Your task to perform on an android device: uninstall "Walmart Shopping & Grocery" Image 0: 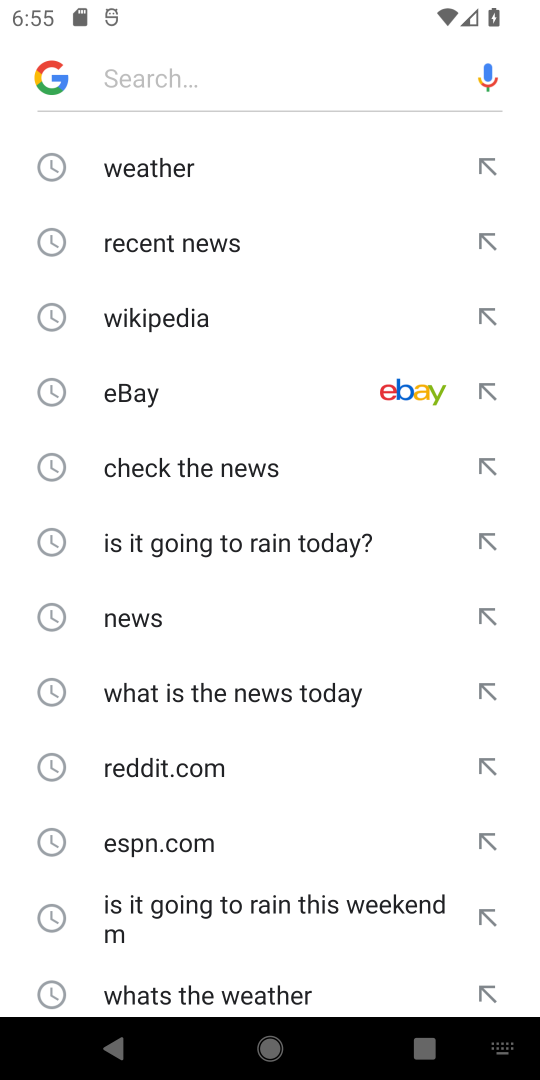
Step 0: press back button
Your task to perform on an android device: uninstall "Walmart Shopping & Grocery" Image 1: 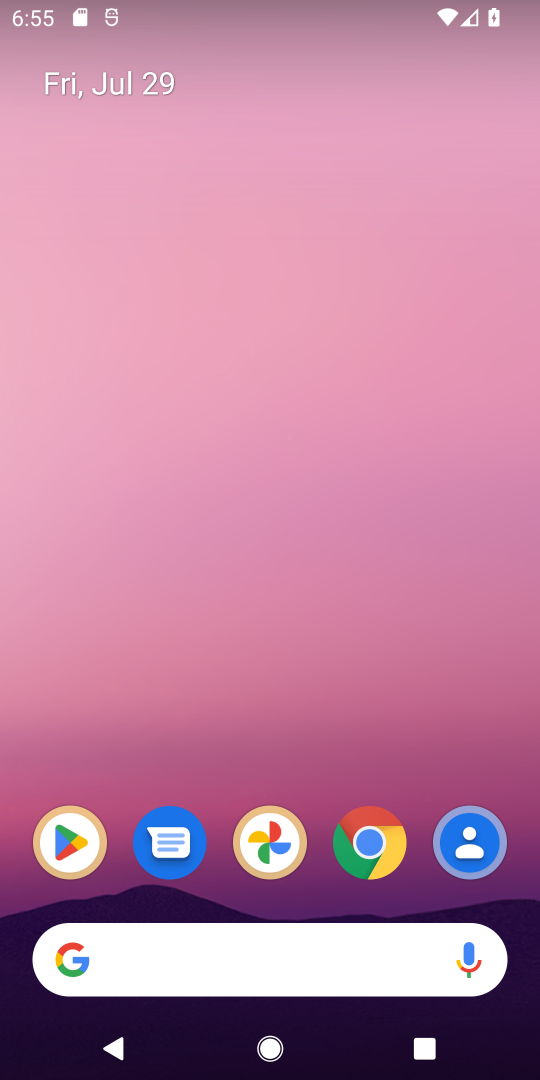
Step 1: drag from (278, 932) to (278, 370)
Your task to perform on an android device: uninstall "Walmart Shopping & Grocery" Image 2: 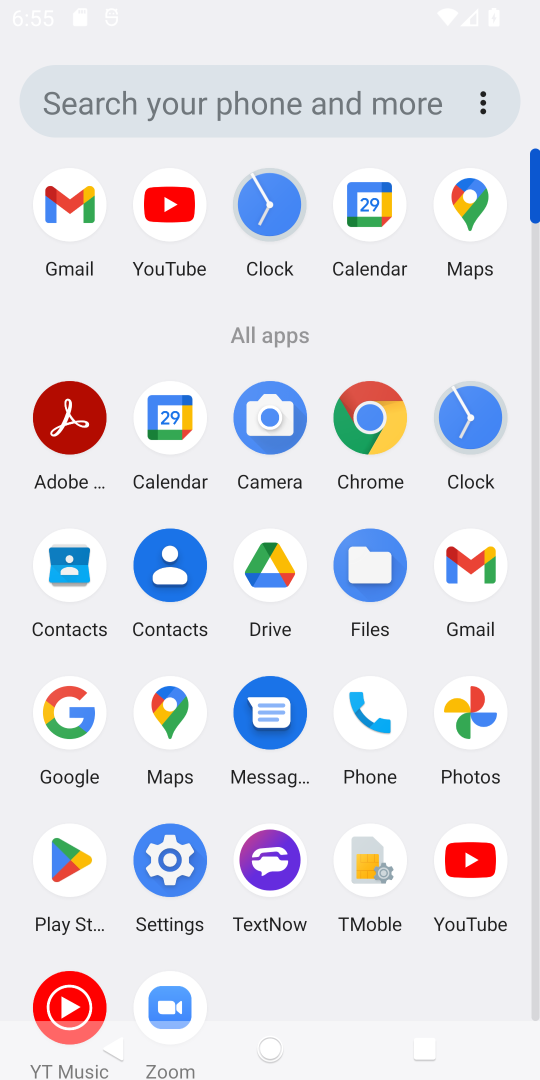
Step 2: drag from (481, 863) to (426, 399)
Your task to perform on an android device: uninstall "Walmart Shopping & Grocery" Image 3: 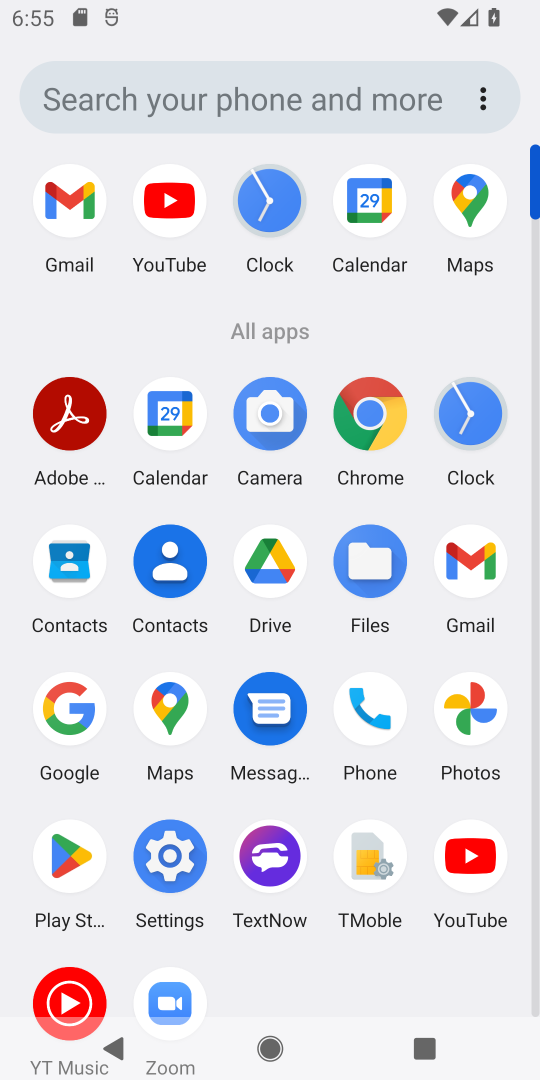
Step 3: drag from (374, 869) to (372, 404)
Your task to perform on an android device: uninstall "Walmart Shopping & Grocery" Image 4: 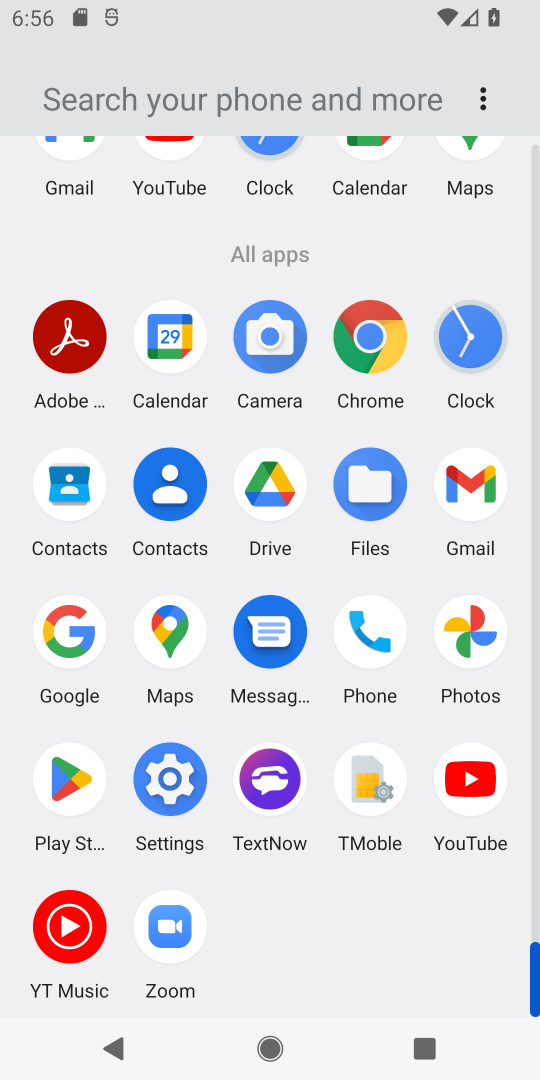
Step 4: click (57, 800)
Your task to perform on an android device: uninstall "Walmart Shopping & Grocery" Image 5: 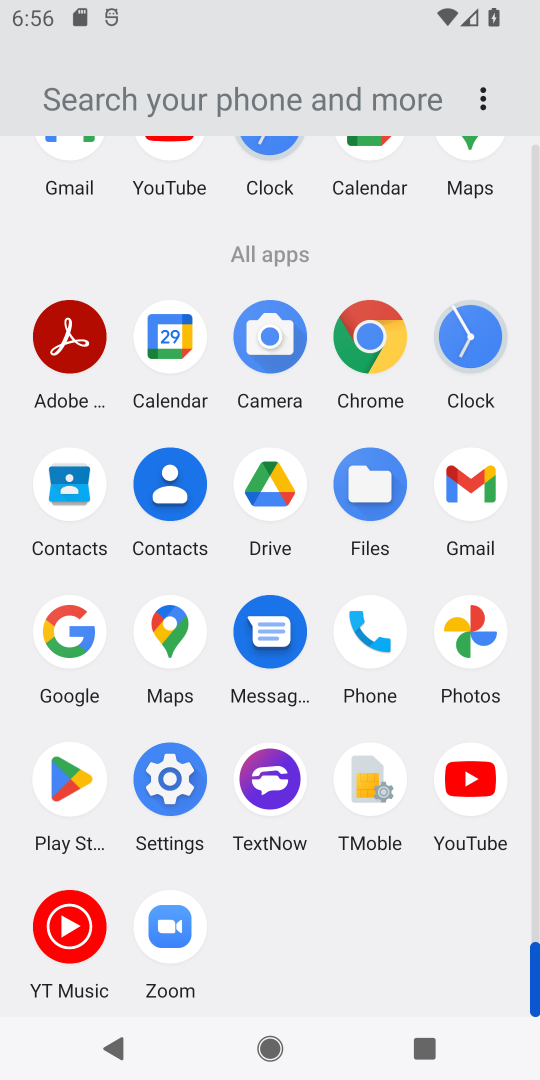
Step 5: click (84, 797)
Your task to perform on an android device: uninstall "Walmart Shopping & Grocery" Image 6: 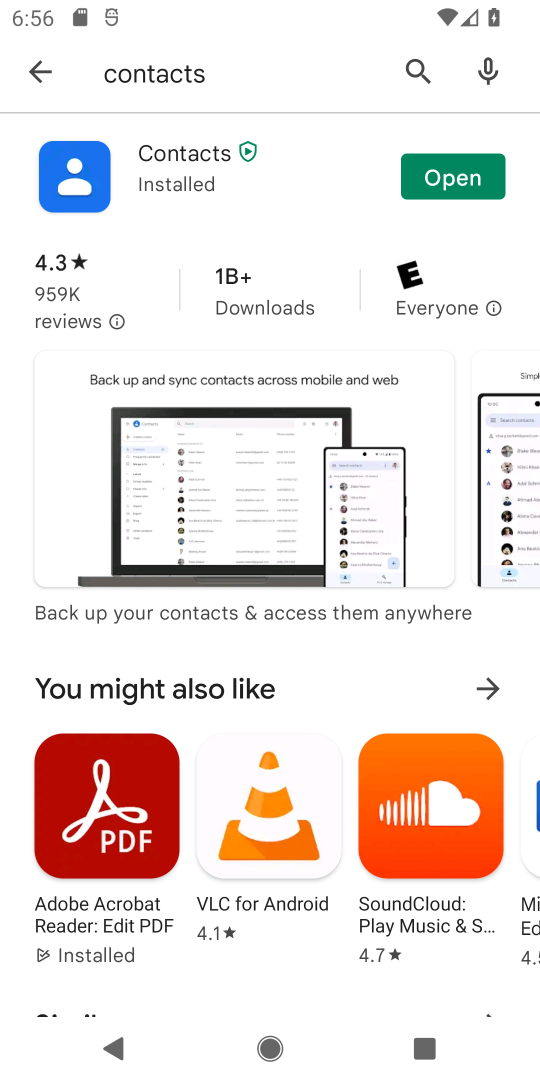
Step 6: click (231, 70)
Your task to perform on an android device: uninstall "Walmart Shopping & Grocery" Image 7: 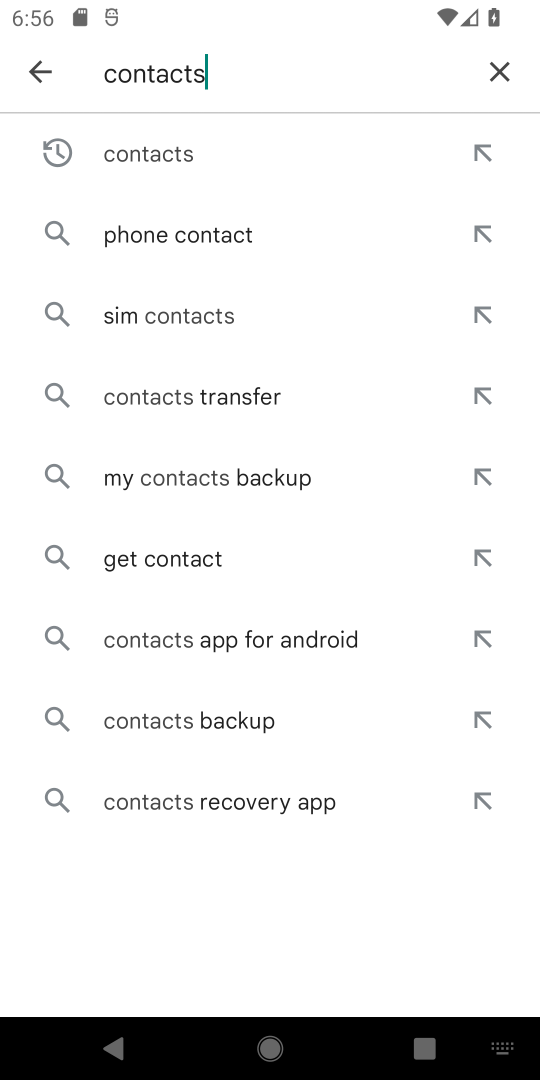
Step 7: click (35, 76)
Your task to perform on an android device: uninstall "Walmart Shopping & Grocery" Image 8: 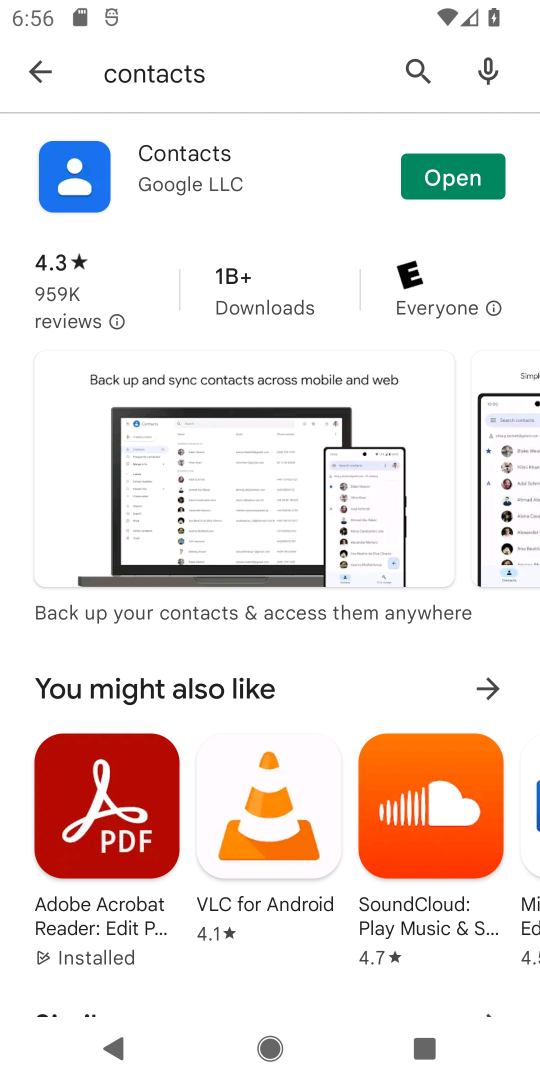
Step 8: click (211, 65)
Your task to perform on an android device: uninstall "Walmart Shopping & Grocery" Image 9: 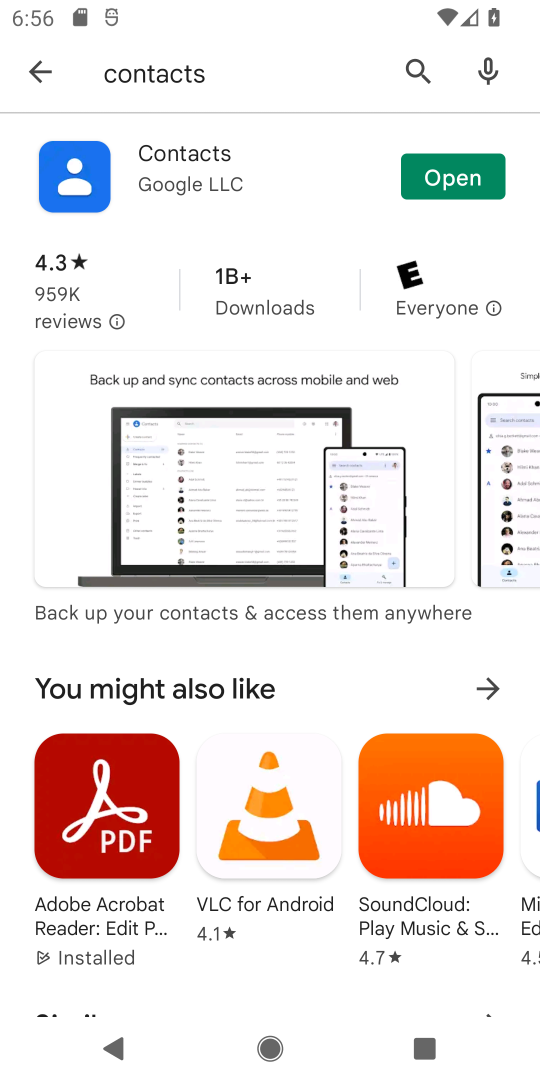
Step 9: click (213, 65)
Your task to perform on an android device: uninstall "Walmart Shopping & Grocery" Image 10: 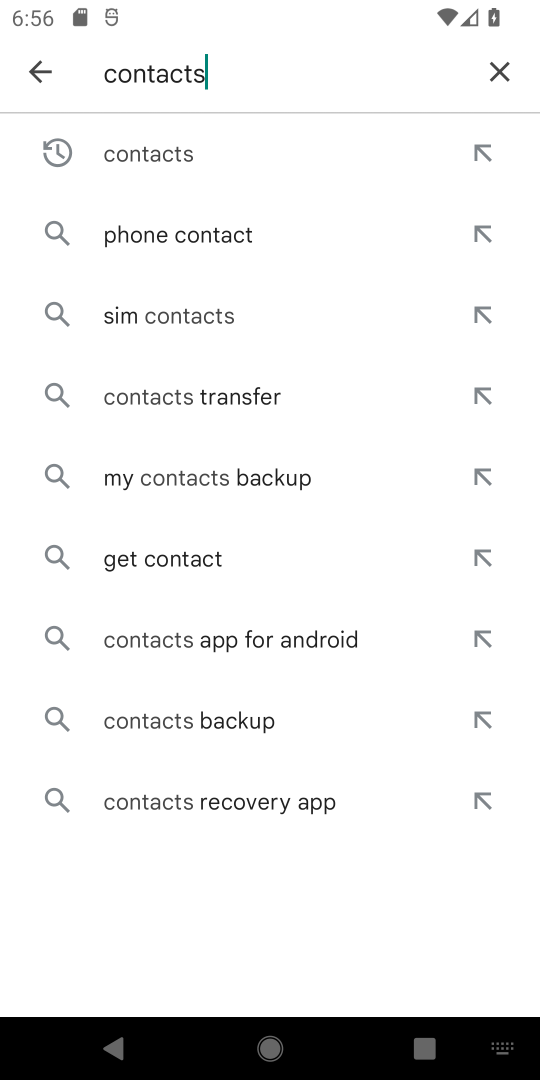
Step 10: click (499, 68)
Your task to perform on an android device: uninstall "Walmart Shopping & Grocery" Image 11: 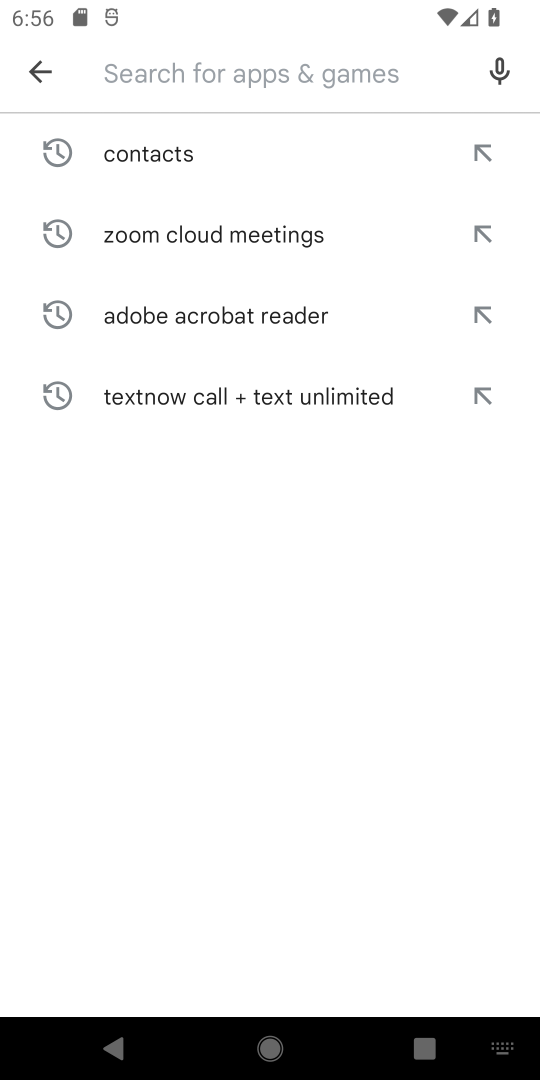
Step 11: click (499, 68)
Your task to perform on an android device: uninstall "Walmart Shopping & Grocery" Image 12: 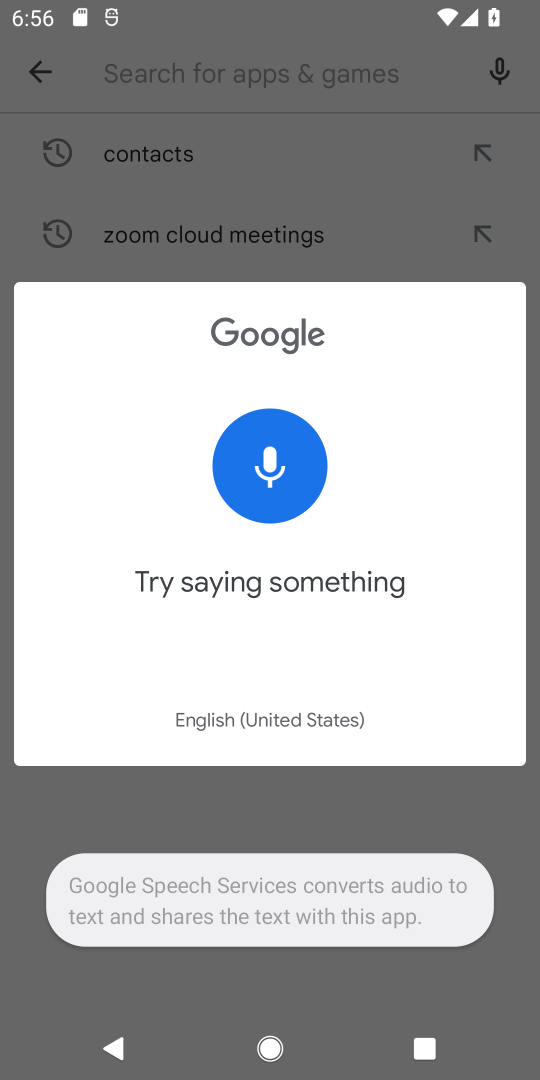
Step 12: click (293, 161)
Your task to perform on an android device: uninstall "Walmart Shopping & Grocery" Image 13: 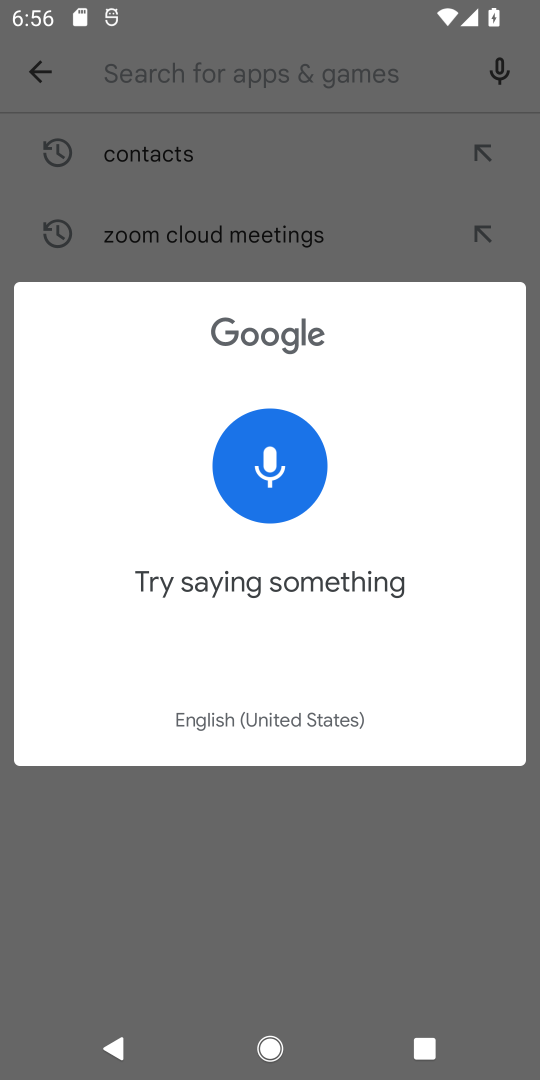
Step 13: click (293, 161)
Your task to perform on an android device: uninstall "Walmart Shopping & Grocery" Image 14: 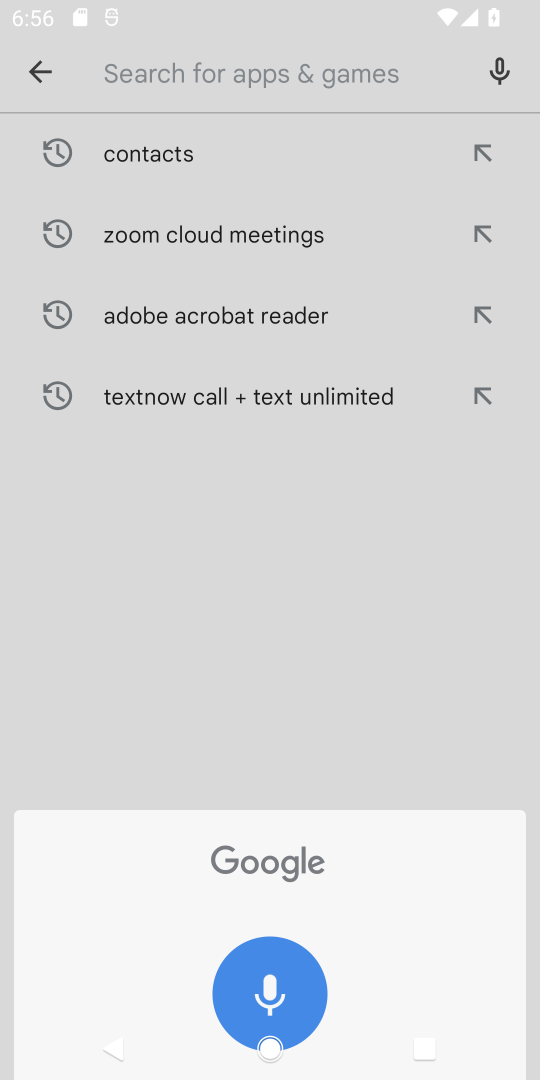
Step 14: click (293, 161)
Your task to perform on an android device: uninstall "Walmart Shopping & Grocery" Image 15: 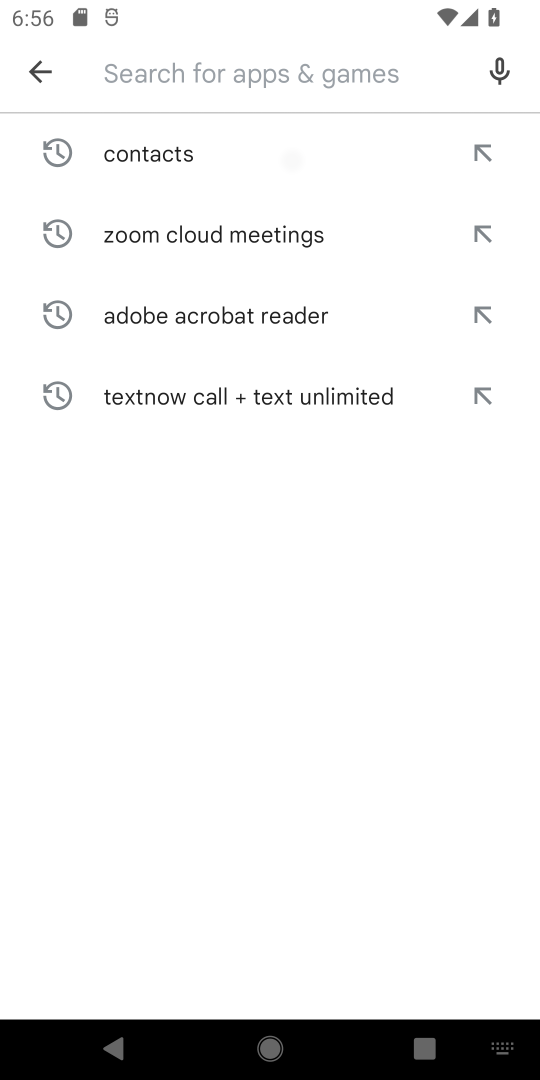
Step 15: click (293, 161)
Your task to perform on an android device: uninstall "Walmart Shopping & Grocery" Image 16: 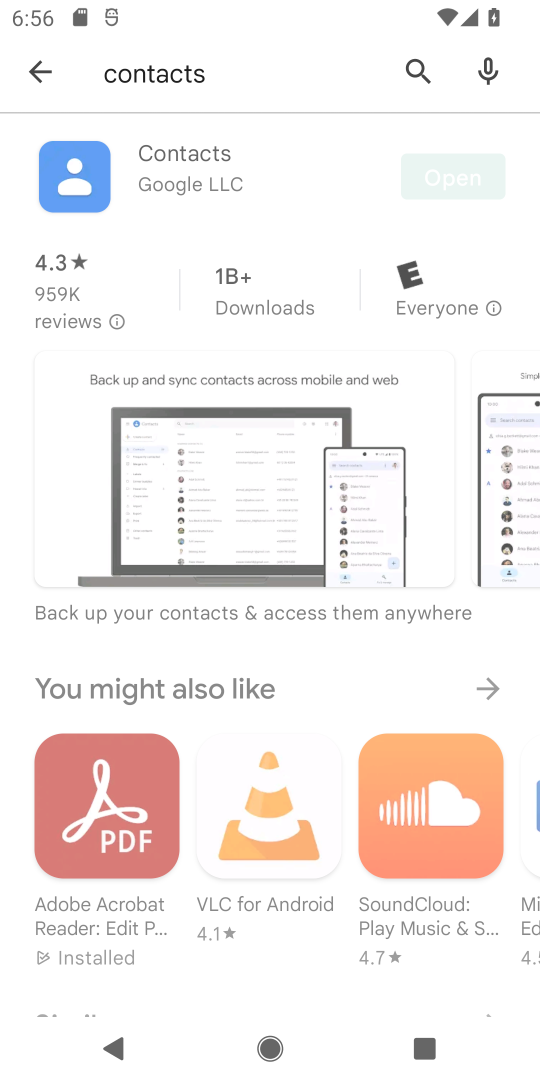
Step 16: click (293, 161)
Your task to perform on an android device: uninstall "Walmart Shopping & Grocery" Image 17: 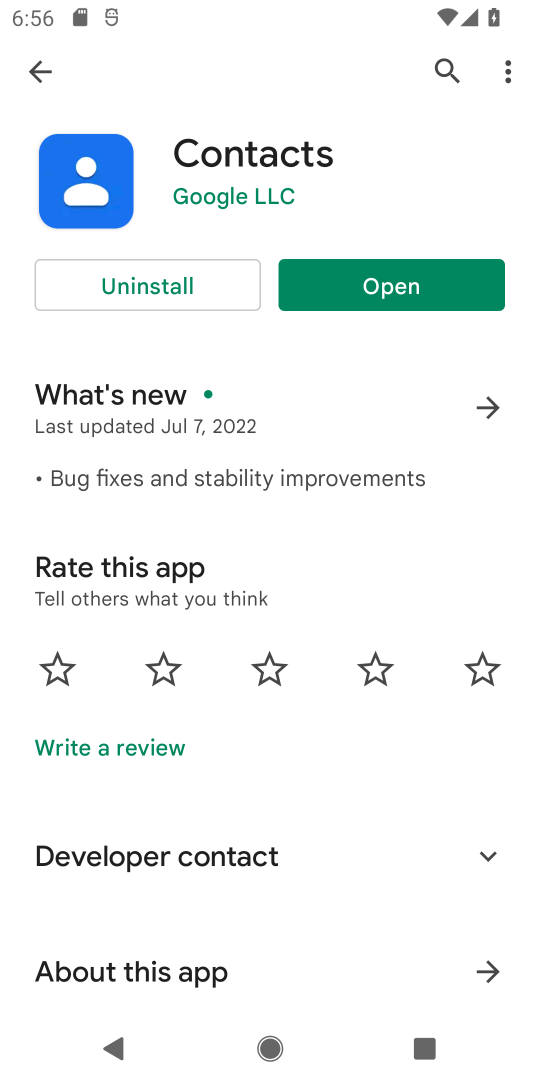
Step 17: click (122, 289)
Your task to perform on an android device: uninstall "Walmart Shopping & Grocery" Image 18: 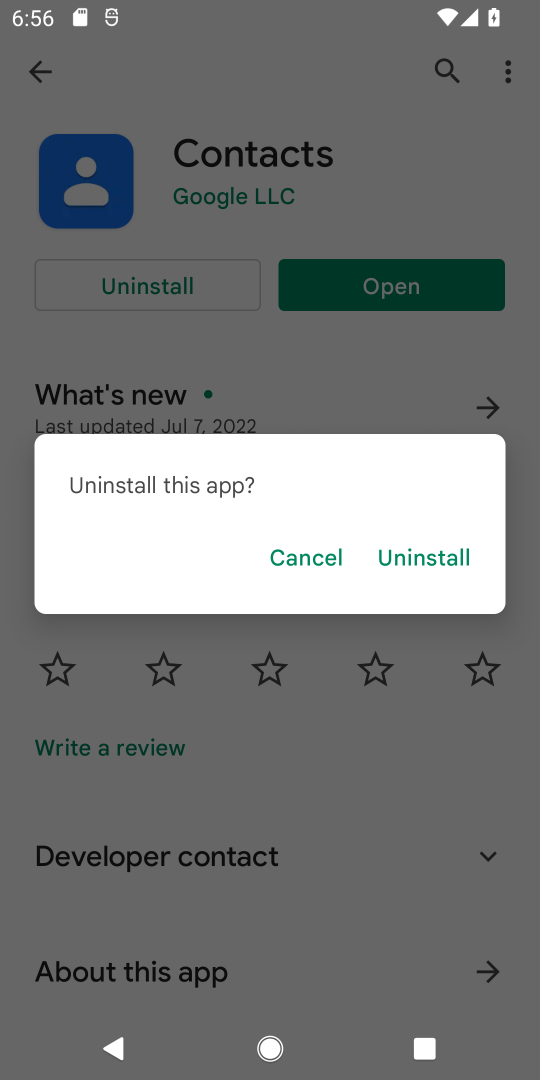
Step 18: click (50, 53)
Your task to perform on an android device: uninstall "Walmart Shopping & Grocery" Image 19: 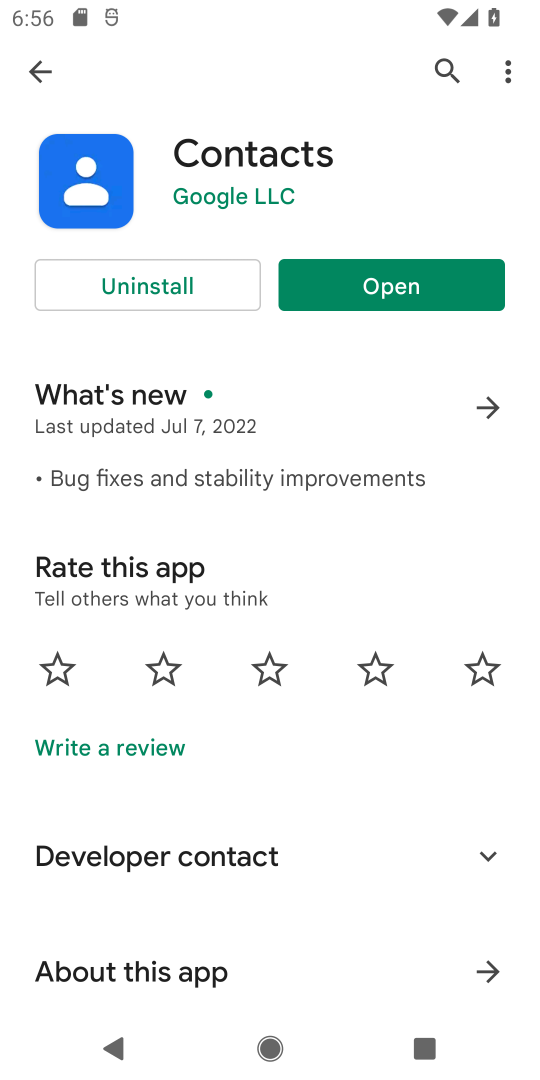
Step 19: click (50, 53)
Your task to perform on an android device: uninstall "Walmart Shopping & Grocery" Image 20: 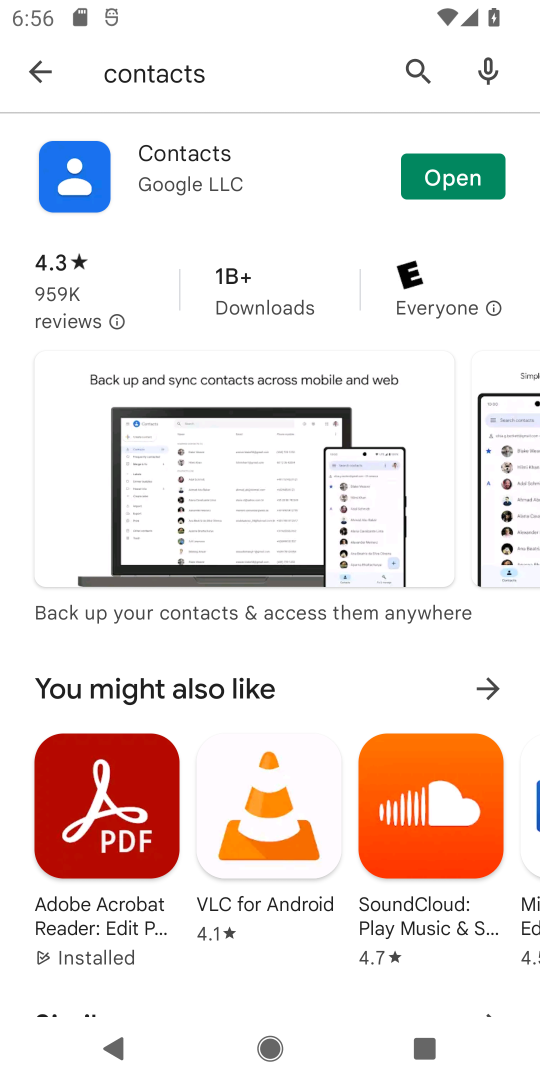
Step 20: click (213, 64)
Your task to perform on an android device: uninstall "Walmart Shopping & Grocery" Image 21: 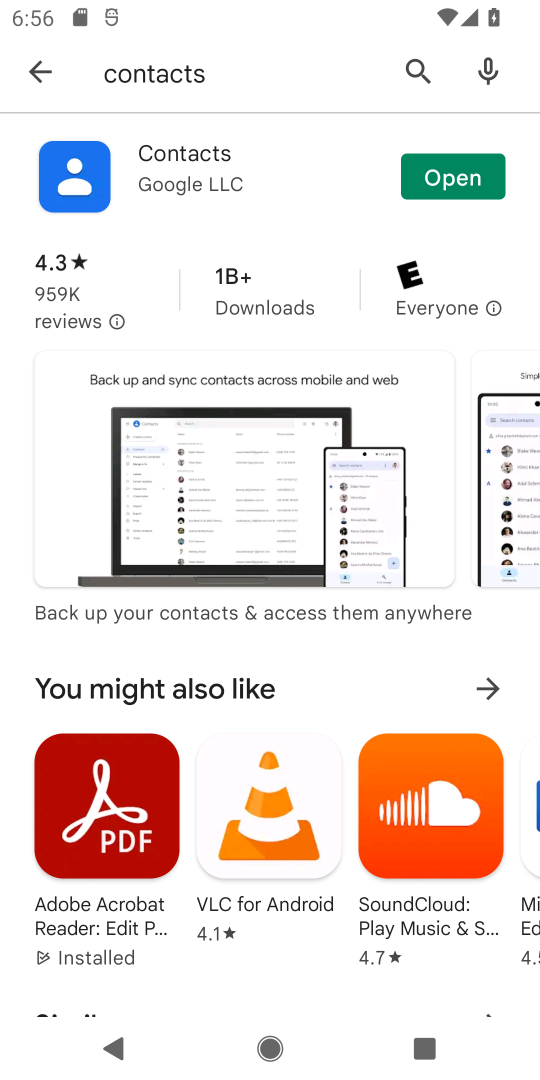
Step 21: click (213, 64)
Your task to perform on an android device: uninstall "Walmart Shopping & Grocery" Image 22: 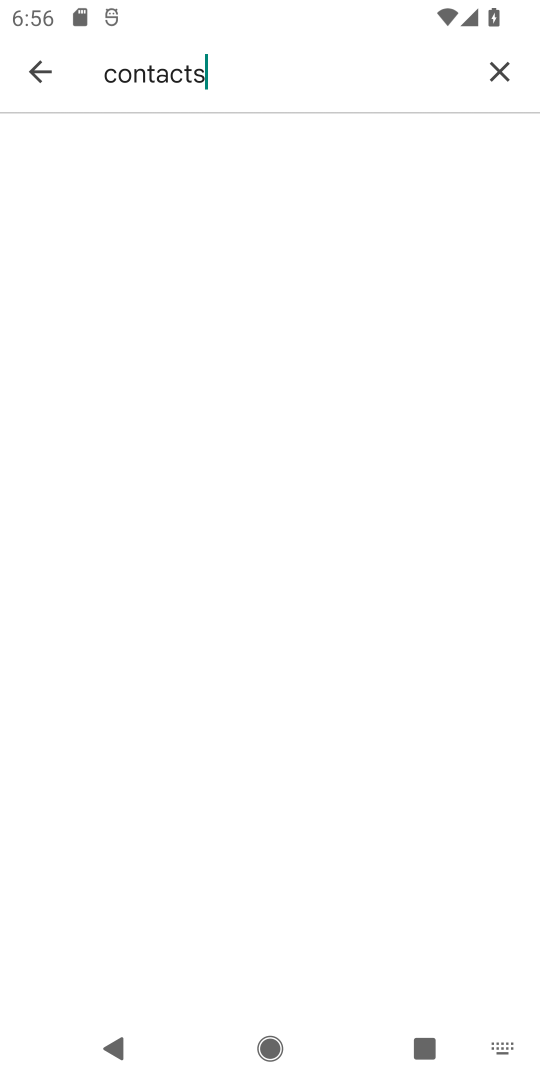
Step 22: click (213, 64)
Your task to perform on an android device: uninstall "Walmart Shopping & Grocery" Image 23: 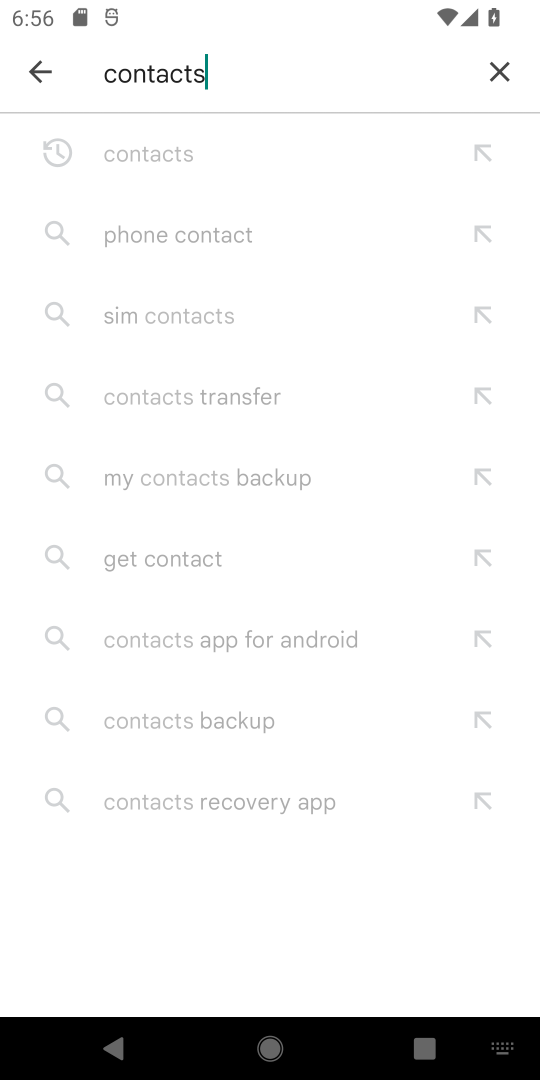
Step 23: click (213, 64)
Your task to perform on an android device: uninstall "Walmart Shopping & Grocery" Image 24: 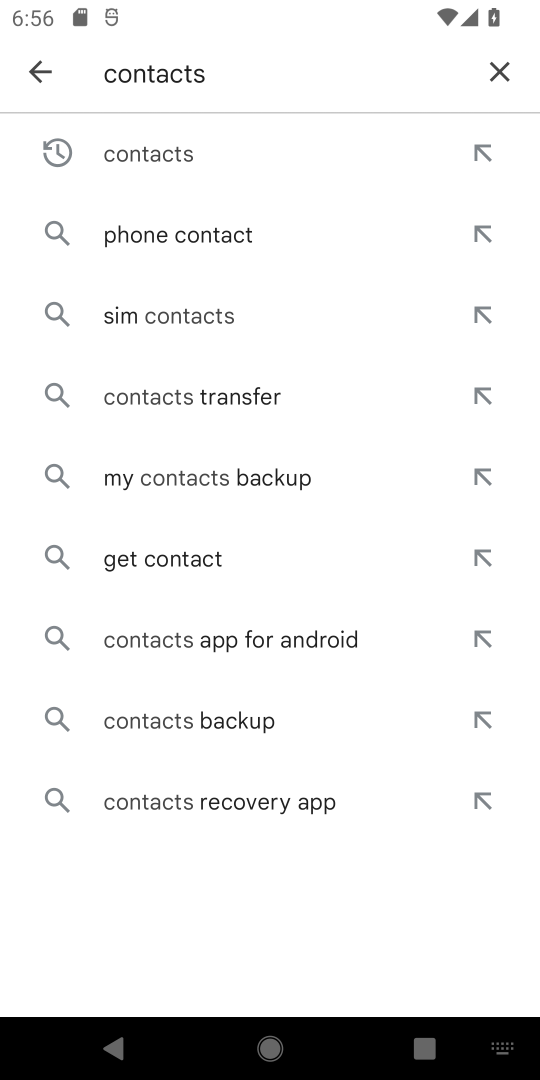
Step 24: click (213, 64)
Your task to perform on an android device: uninstall "Walmart Shopping & Grocery" Image 25: 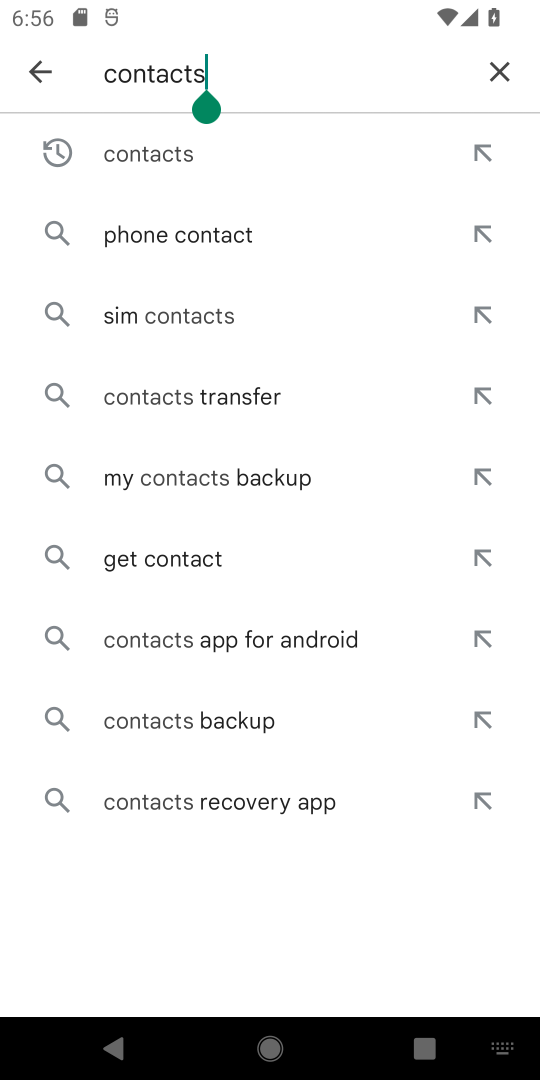
Step 25: click (496, 67)
Your task to perform on an android device: uninstall "Walmart Shopping & Grocery" Image 26: 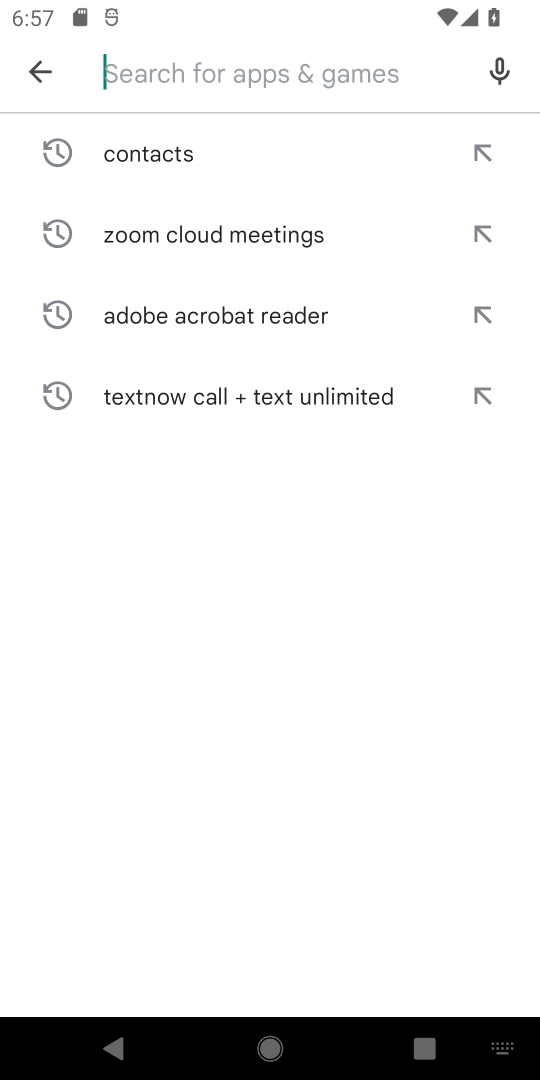
Step 26: type "walmart shopping & grocery"
Your task to perform on an android device: uninstall "Walmart Shopping & Grocery" Image 27: 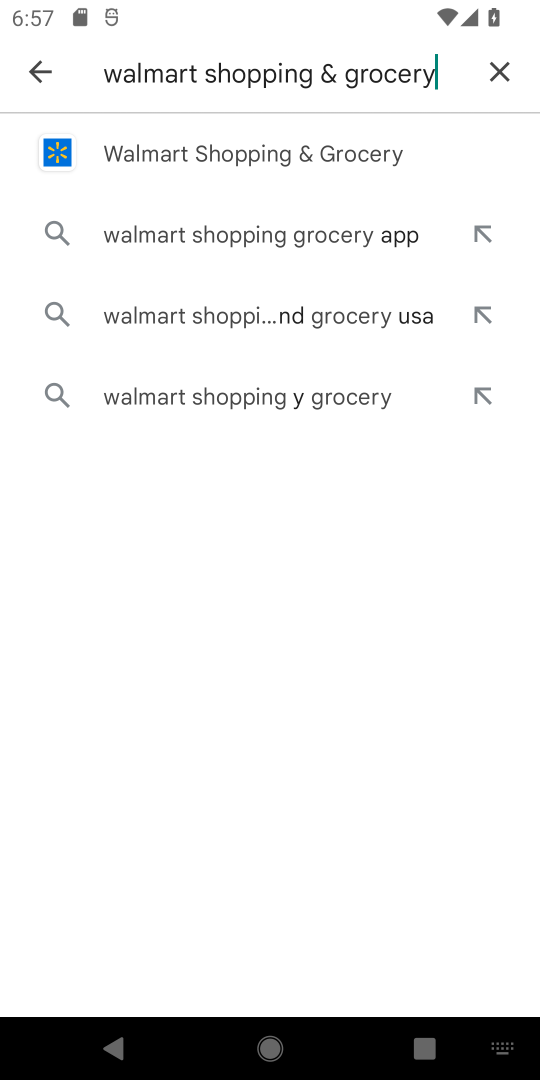
Step 27: click (261, 162)
Your task to perform on an android device: uninstall "Walmart Shopping & Grocery" Image 28: 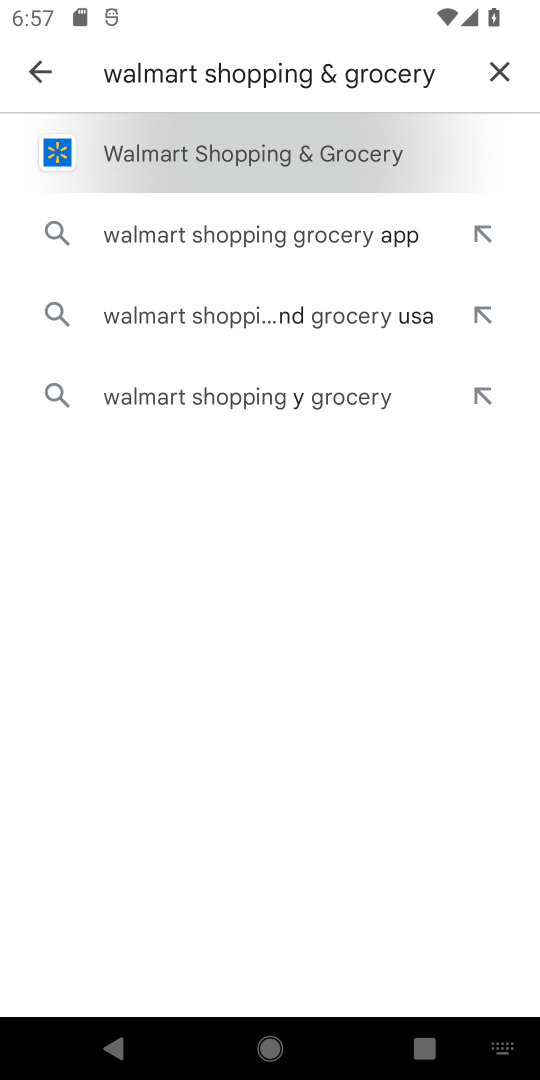
Step 28: click (276, 149)
Your task to perform on an android device: uninstall "Walmart Shopping & Grocery" Image 29: 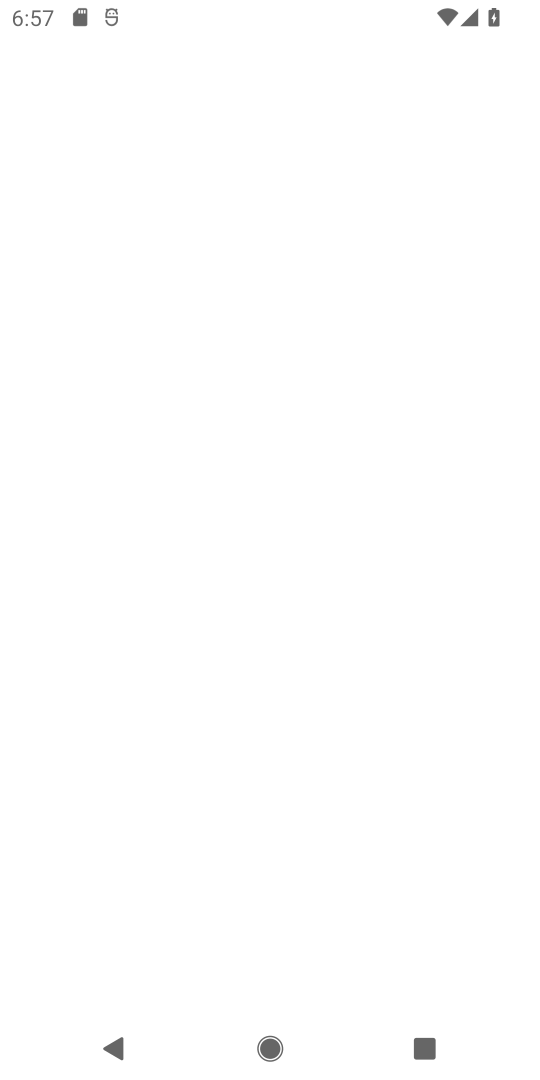
Step 29: click (278, 148)
Your task to perform on an android device: uninstall "Walmart Shopping & Grocery" Image 30: 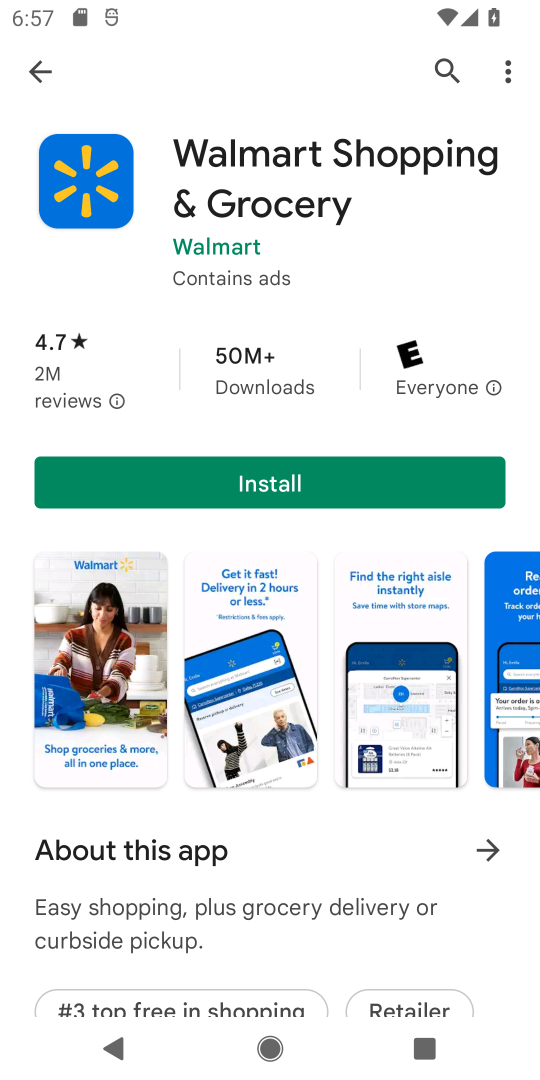
Step 30: task complete